Your task to perform on an android device: Go to display settings Image 0: 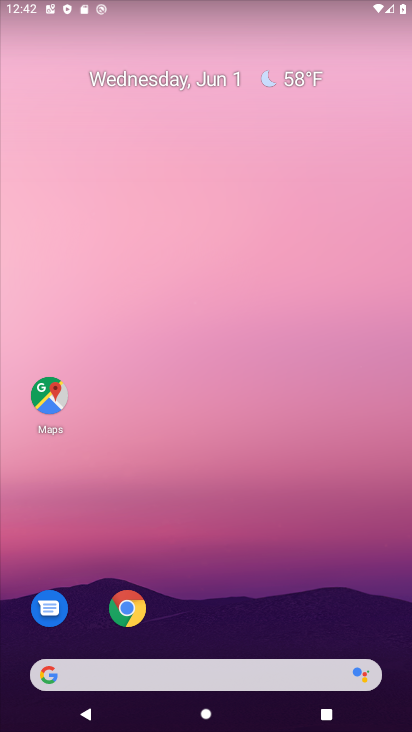
Step 0: click (138, 607)
Your task to perform on an android device: Go to display settings Image 1: 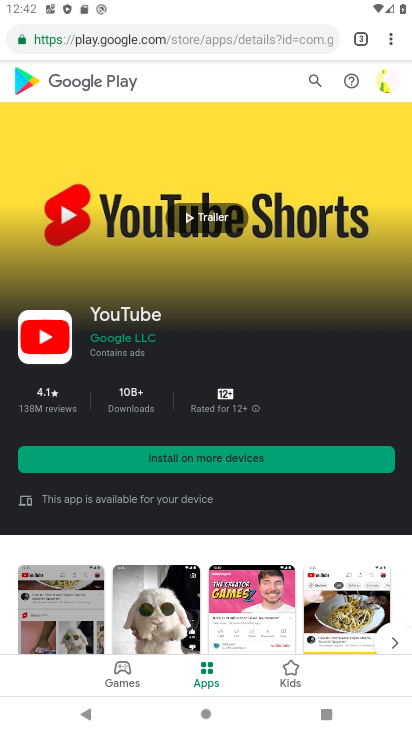
Step 1: press home button
Your task to perform on an android device: Go to display settings Image 2: 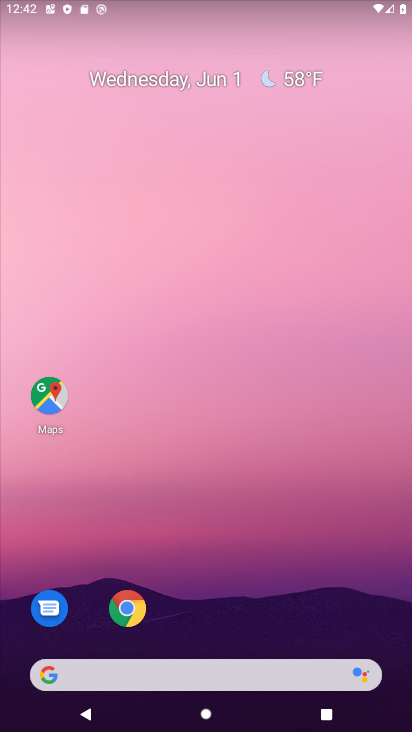
Step 2: drag from (326, 594) to (261, 0)
Your task to perform on an android device: Go to display settings Image 3: 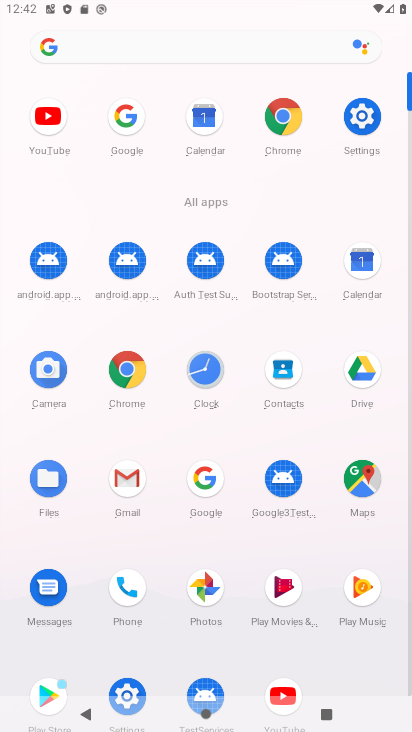
Step 3: click (362, 128)
Your task to perform on an android device: Go to display settings Image 4: 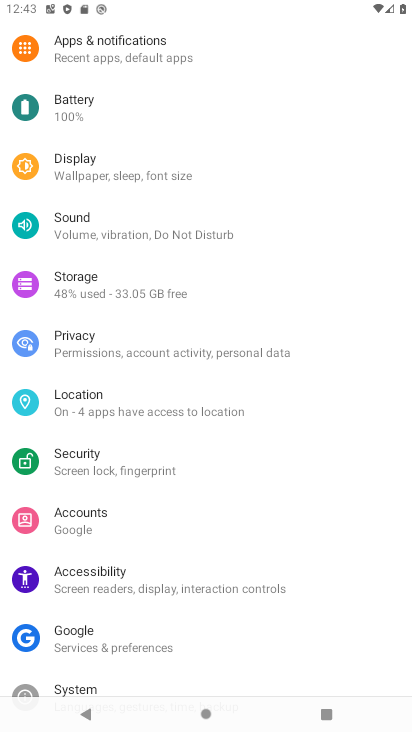
Step 4: click (83, 169)
Your task to perform on an android device: Go to display settings Image 5: 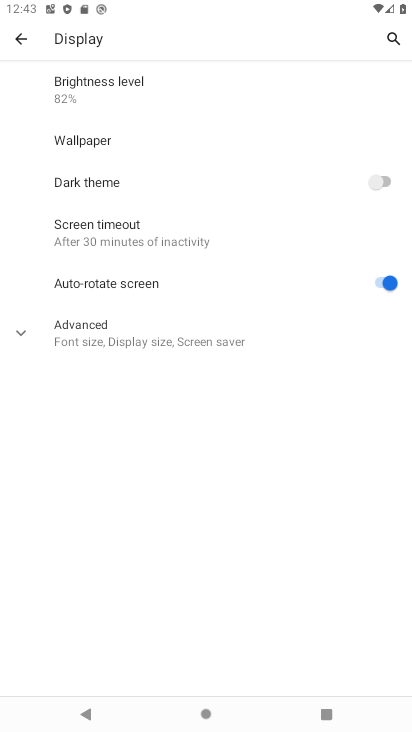
Step 5: task complete